Your task to perform on an android device: delete location history Image 0: 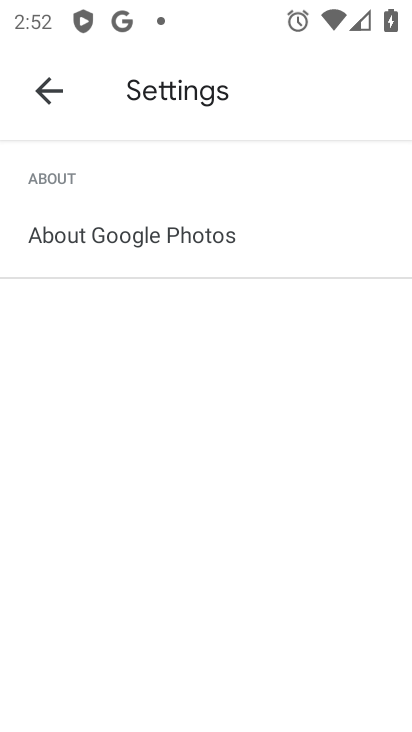
Step 0: press home button
Your task to perform on an android device: delete location history Image 1: 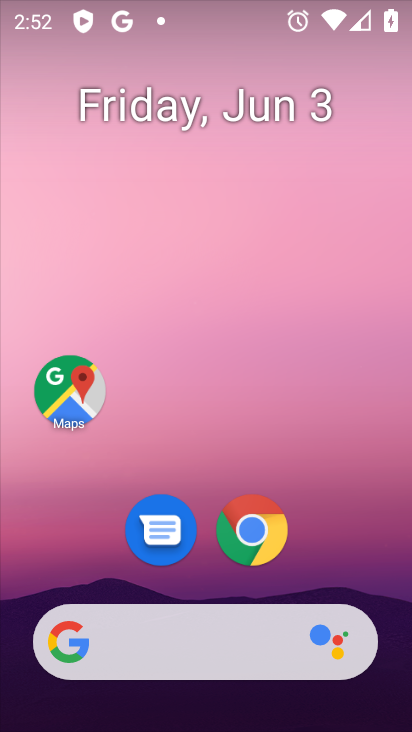
Step 1: drag from (99, 553) to (178, 76)
Your task to perform on an android device: delete location history Image 2: 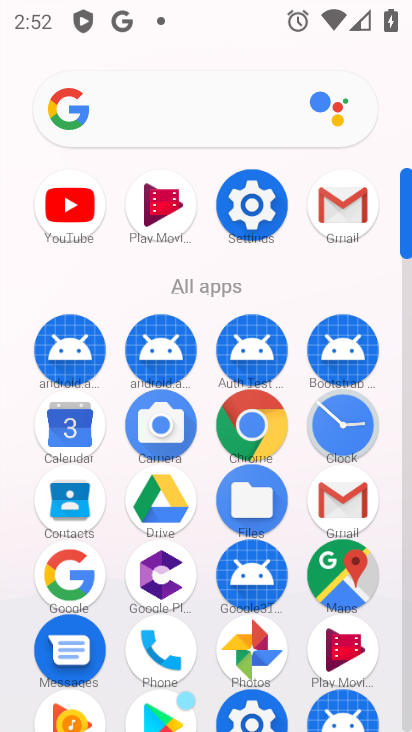
Step 2: click (265, 213)
Your task to perform on an android device: delete location history Image 3: 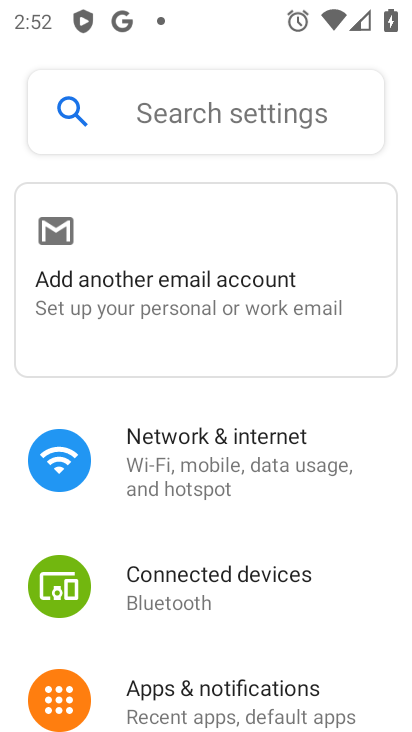
Step 3: drag from (344, 498) to (343, 120)
Your task to perform on an android device: delete location history Image 4: 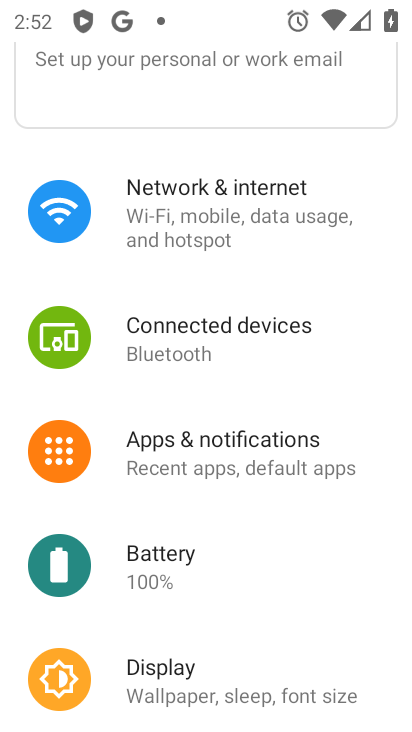
Step 4: drag from (313, 619) to (334, 118)
Your task to perform on an android device: delete location history Image 5: 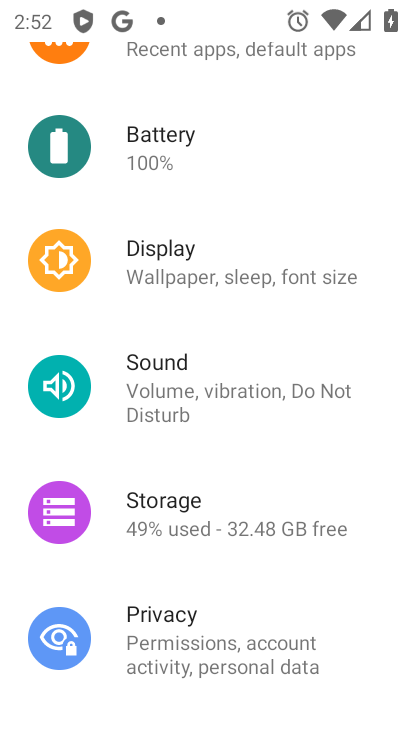
Step 5: drag from (323, 557) to (328, 221)
Your task to perform on an android device: delete location history Image 6: 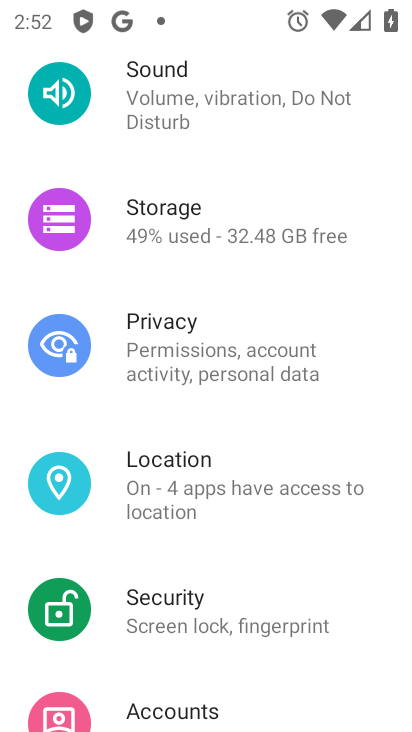
Step 6: click (188, 504)
Your task to perform on an android device: delete location history Image 7: 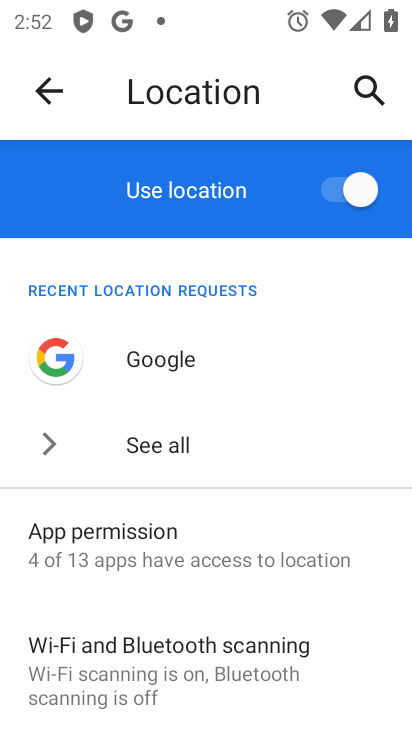
Step 7: click (341, 242)
Your task to perform on an android device: delete location history Image 8: 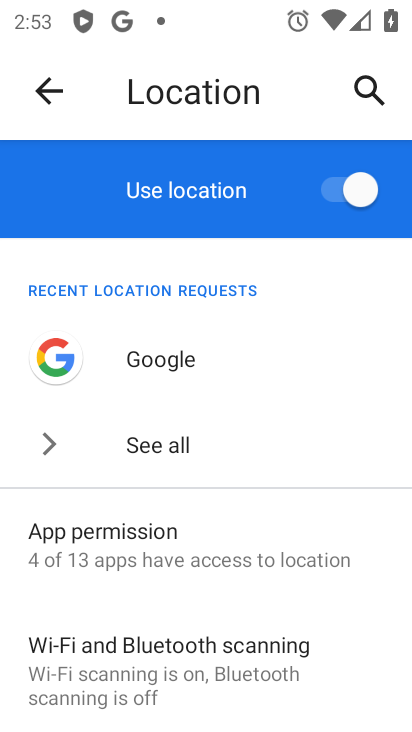
Step 8: drag from (348, 656) to (336, 245)
Your task to perform on an android device: delete location history Image 9: 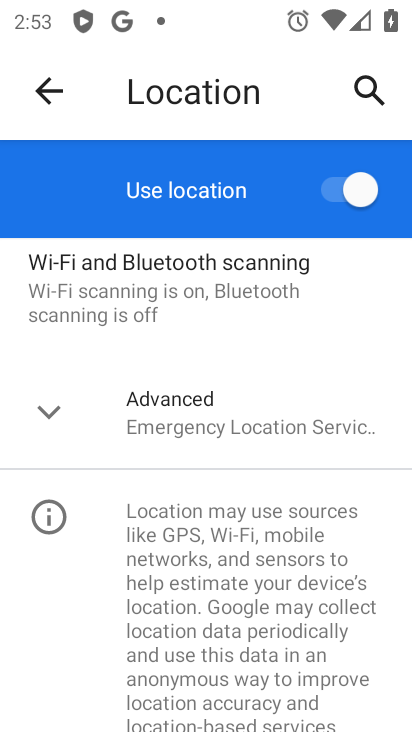
Step 9: click (181, 428)
Your task to perform on an android device: delete location history Image 10: 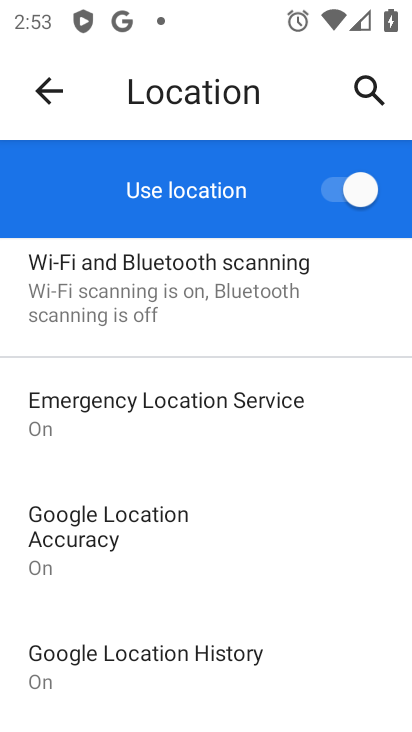
Step 10: click (228, 668)
Your task to perform on an android device: delete location history Image 11: 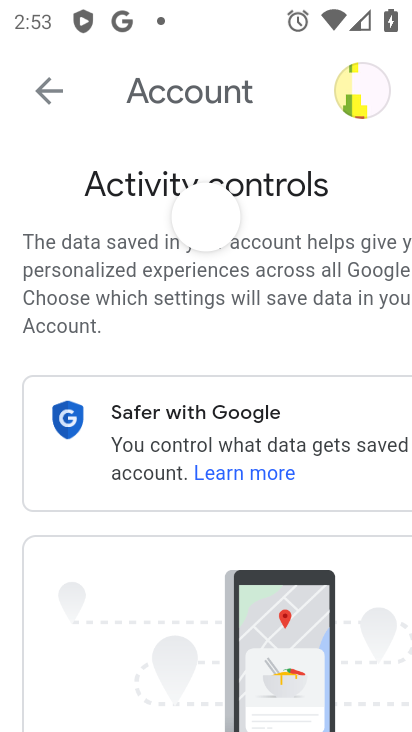
Step 11: drag from (208, 582) to (230, 229)
Your task to perform on an android device: delete location history Image 12: 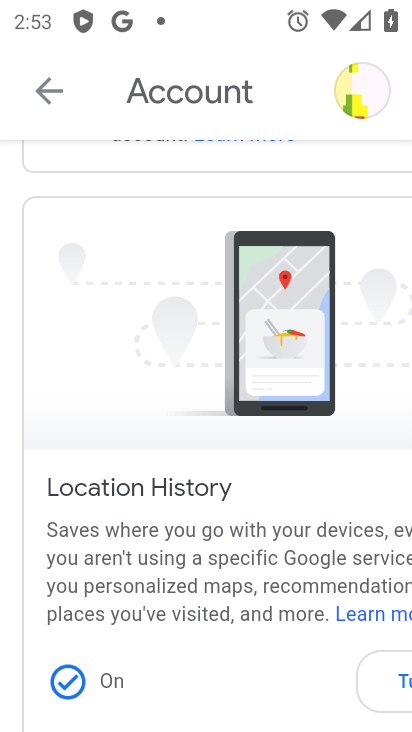
Step 12: drag from (313, 242) to (255, 240)
Your task to perform on an android device: delete location history Image 13: 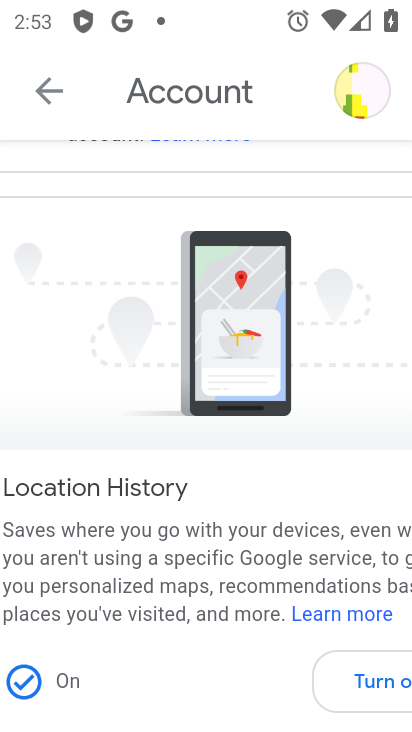
Step 13: drag from (247, 683) to (240, 179)
Your task to perform on an android device: delete location history Image 14: 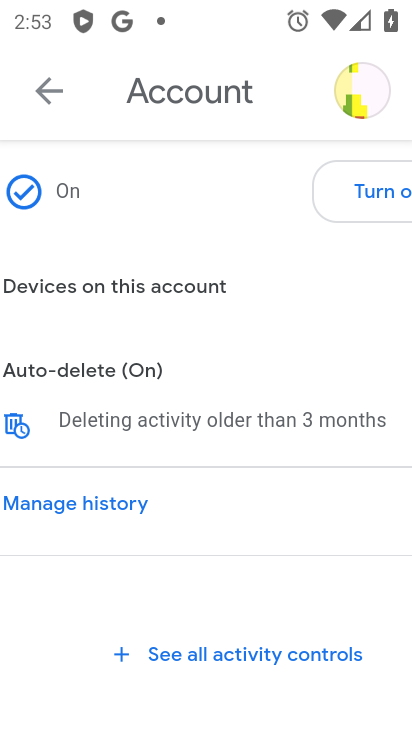
Step 14: click (150, 428)
Your task to perform on an android device: delete location history Image 15: 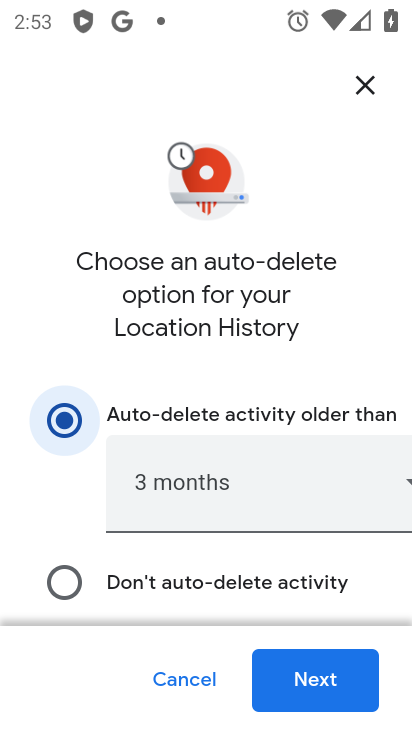
Step 15: click (325, 696)
Your task to perform on an android device: delete location history Image 16: 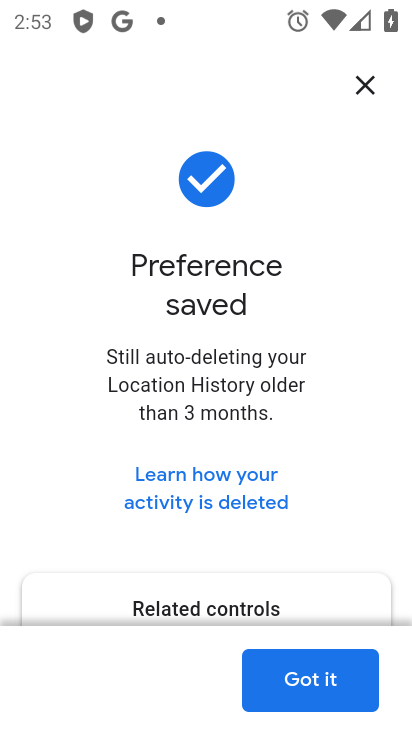
Step 16: click (327, 685)
Your task to perform on an android device: delete location history Image 17: 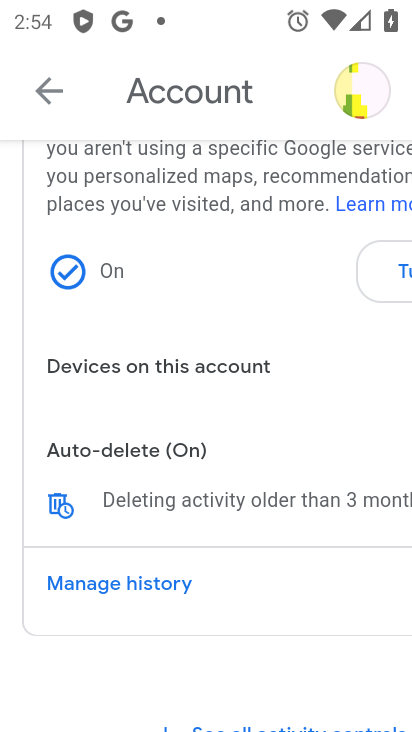
Step 17: task complete